Your task to perform on an android device: Search for alienware aurora on costco.com, select the first entry, add it to the cart, then select checkout. Image 0: 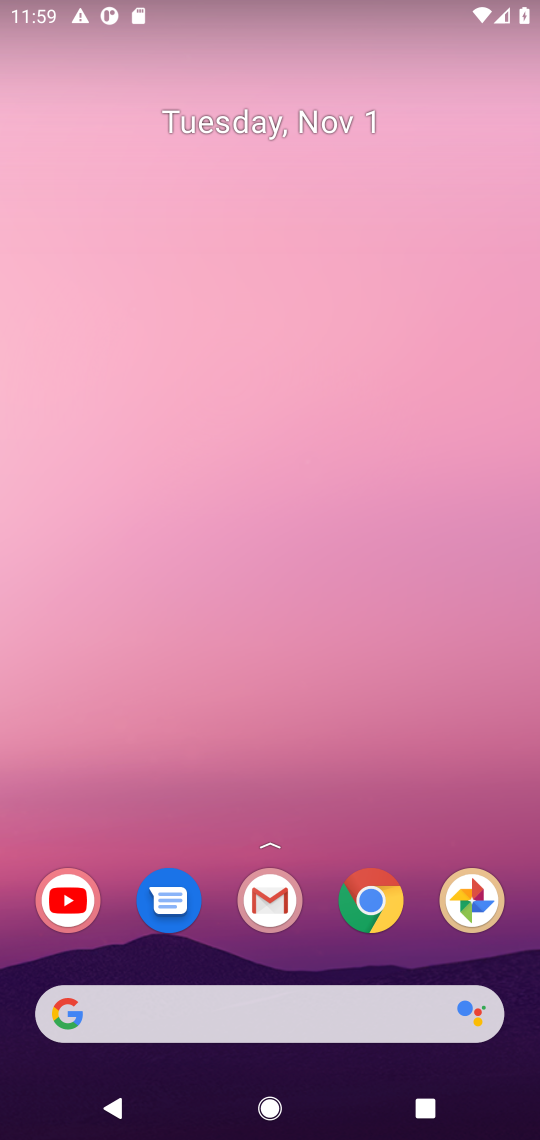
Step 0: click (376, 912)
Your task to perform on an android device: Search for alienware aurora on costco.com, select the first entry, add it to the cart, then select checkout. Image 1: 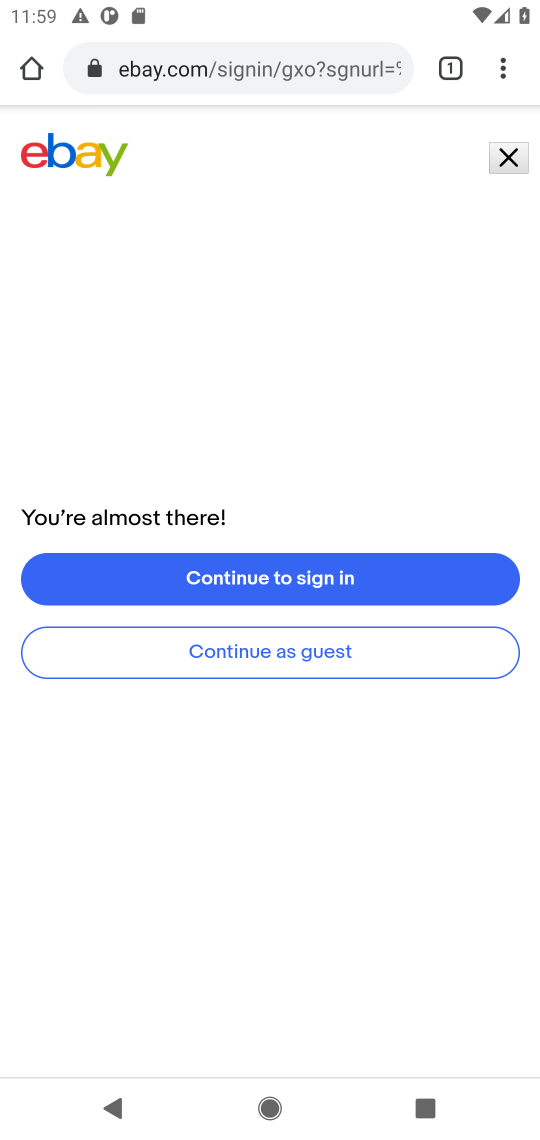
Step 1: click (215, 85)
Your task to perform on an android device: Search for alienware aurora on costco.com, select the first entry, add it to the cart, then select checkout. Image 2: 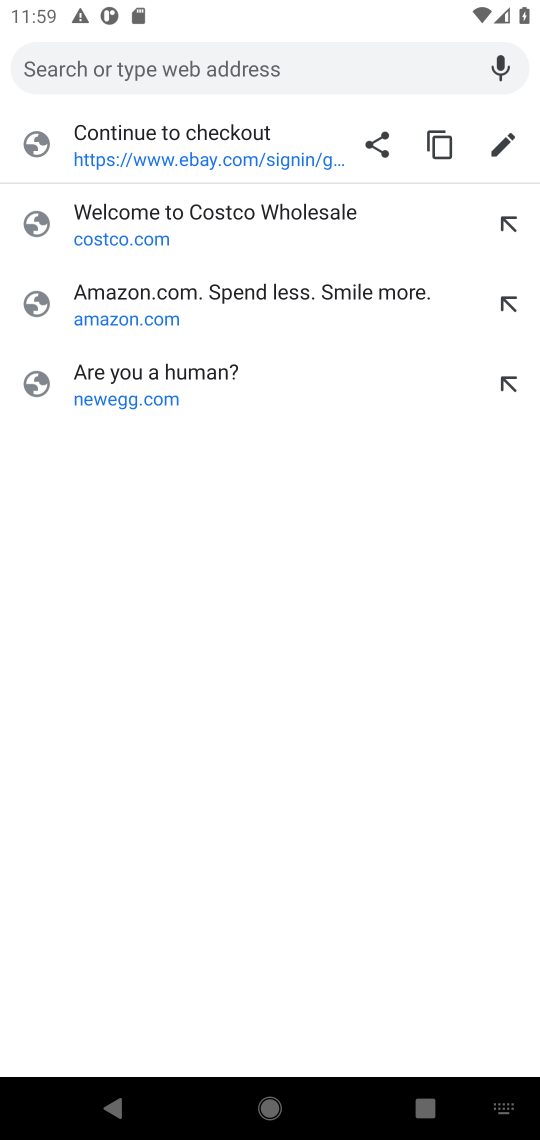
Step 2: click (228, 227)
Your task to perform on an android device: Search for alienware aurora on costco.com, select the first entry, add it to the cart, then select checkout. Image 3: 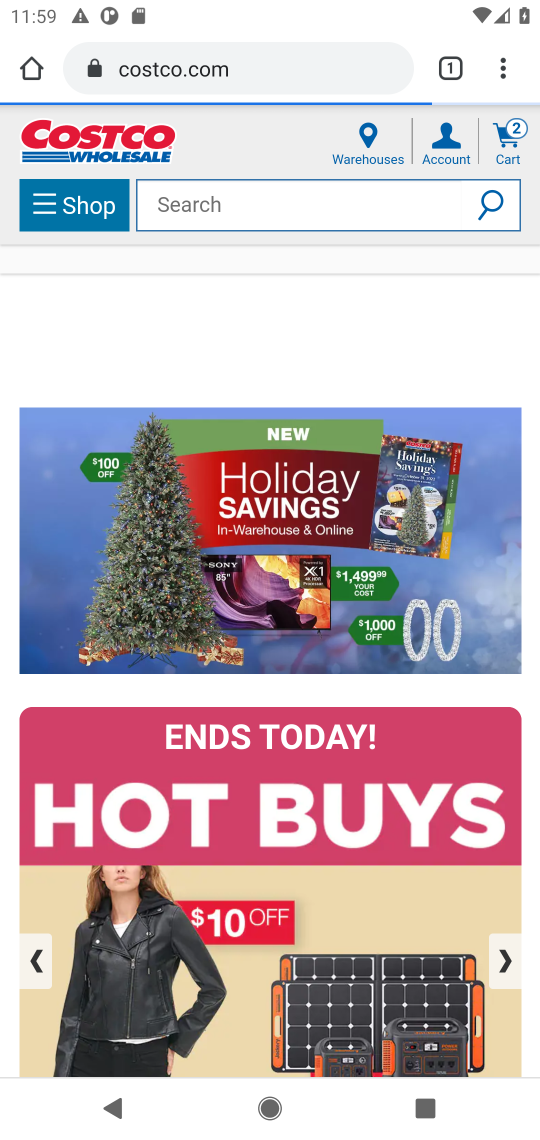
Step 3: click (226, 215)
Your task to perform on an android device: Search for alienware aurora on costco.com, select the first entry, add it to the cart, then select checkout. Image 4: 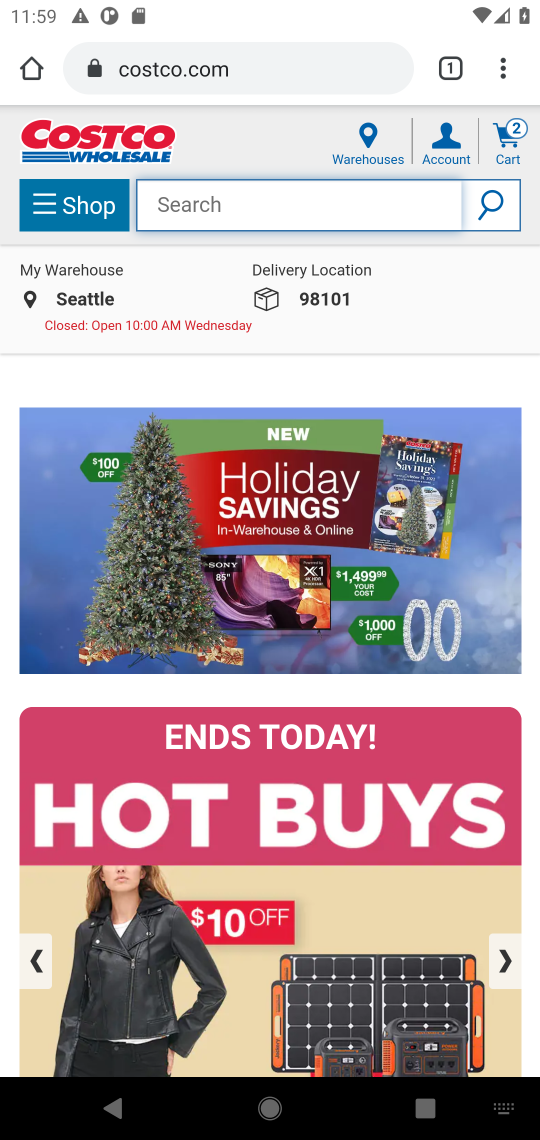
Step 4: type "alienware aurora"
Your task to perform on an android device: Search for alienware aurora on costco.com, select the first entry, add it to the cart, then select checkout. Image 5: 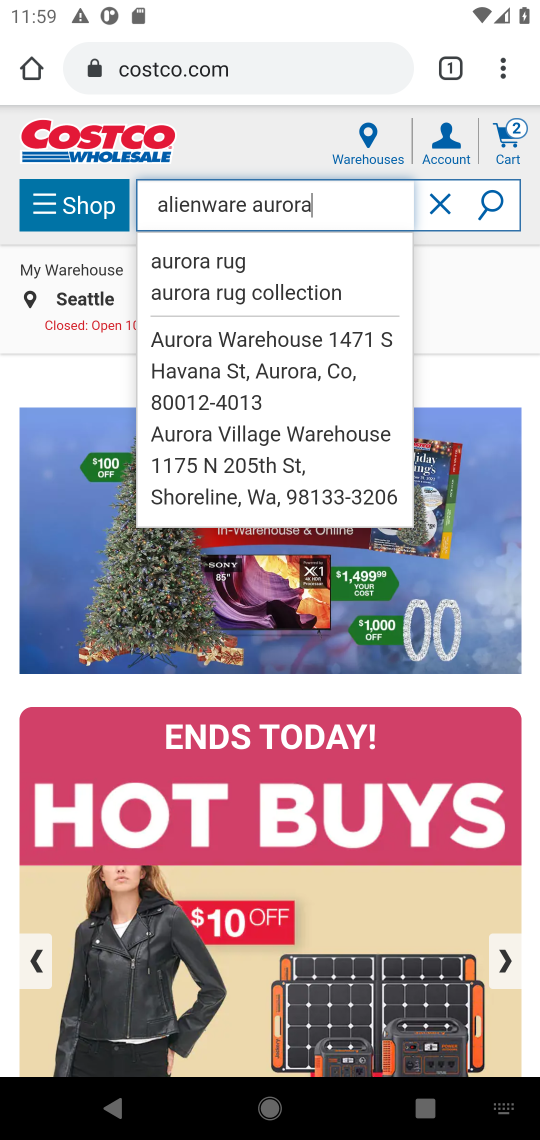
Step 5: click (498, 219)
Your task to perform on an android device: Search for alienware aurora on costco.com, select the first entry, add it to the cart, then select checkout. Image 6: 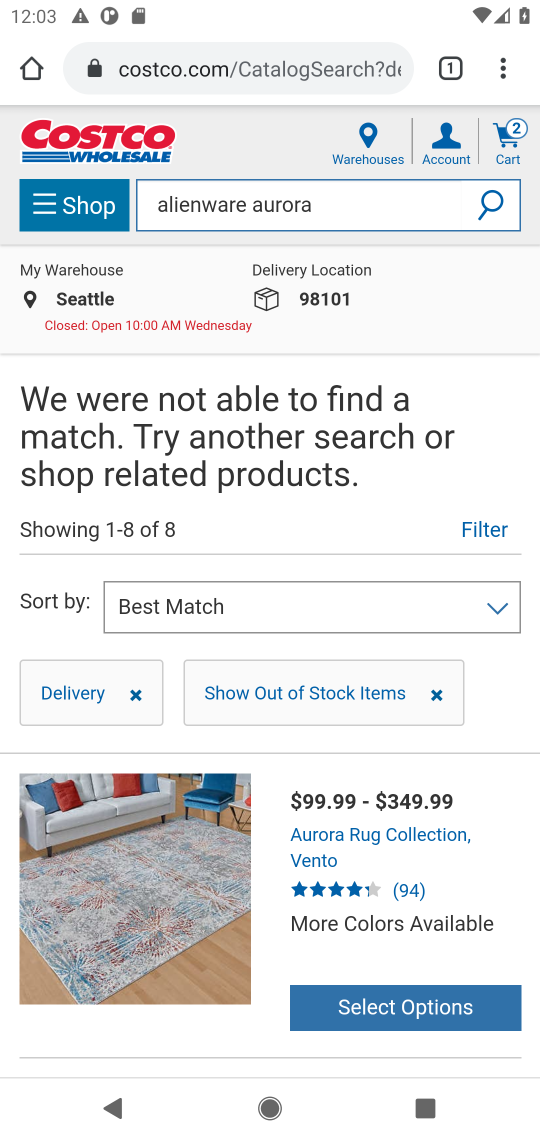
Step 6: task complete